Your task to perform on an android device: turn vacation reply on in the gmail app Image 0: 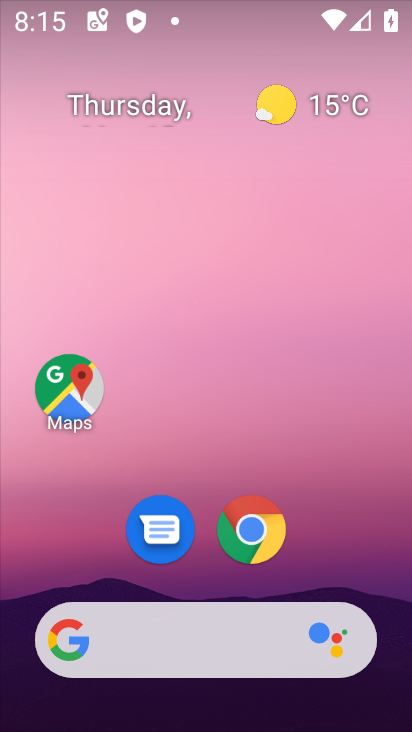
Step 0: drag from (144, 687) to (165, 22)
Your task to perform on an android device: turn vacation reply on in the gmail app Image 1: 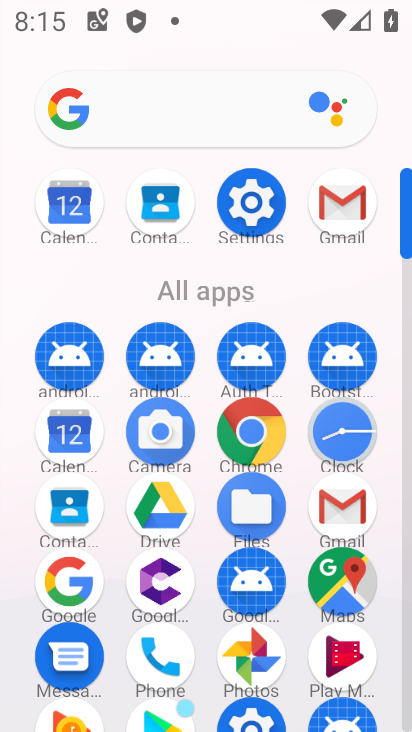
Step 1: click (343, 205)
Your task to perform on an android device: turn vacation reply on in the gmail app Image 2: 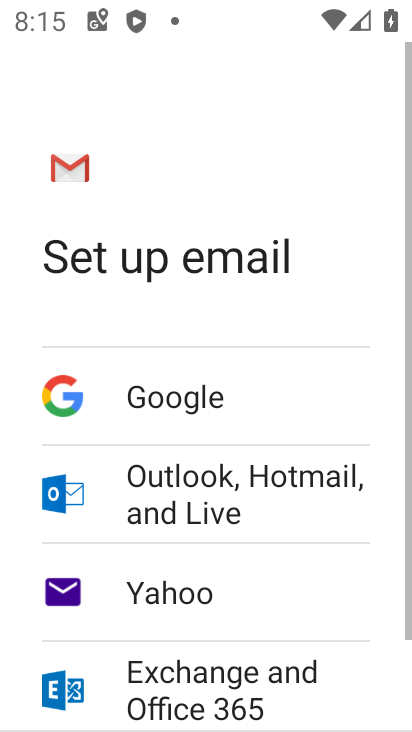
Step 2: press home button
Your task to perform on an android device: turn vacation reply on in the gmail app Image 3: 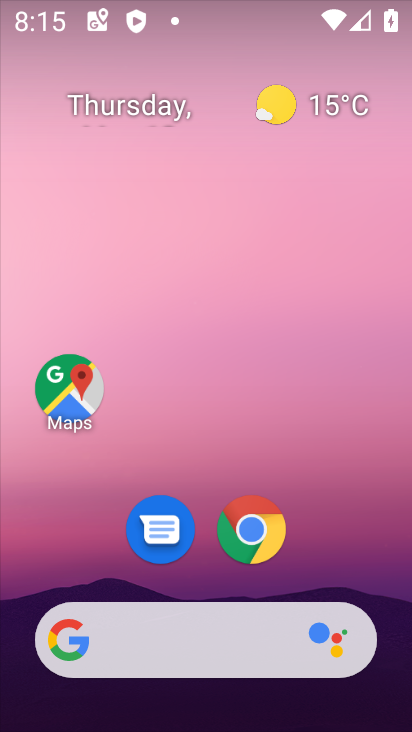
Step 3: drag from (179, 704) to (216, 13)
Your task to perform on an android device: turn vacation reply on in the gmail app Image 4: 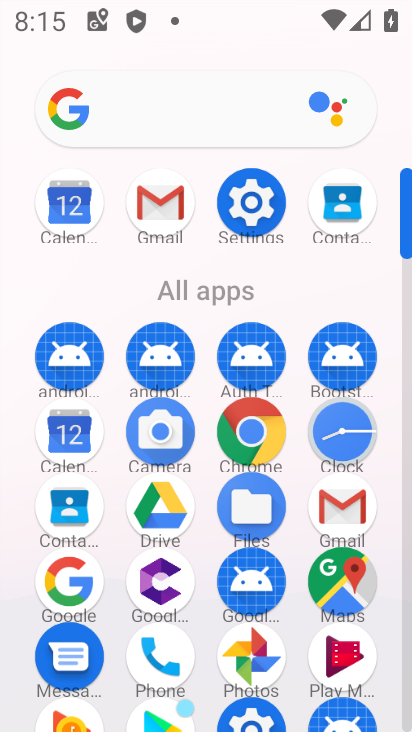
Step 4: click (330, 517)
Your task to perform on an android device: turn vacation reply on in the gmail app Image 5: 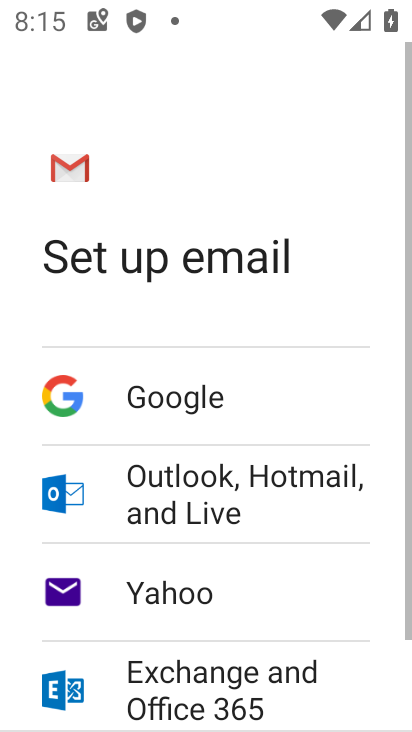
Step 5: press back button
Your task to perform on an android device: turn vacation reply on in the gmail app Image 6: 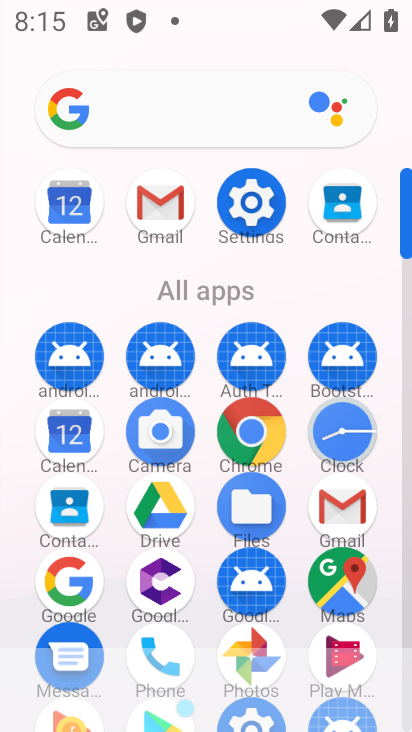
Step 6: click (352, 510)
Your task to perform on an android device: turn vacation reply on in the gmail app Image 7: 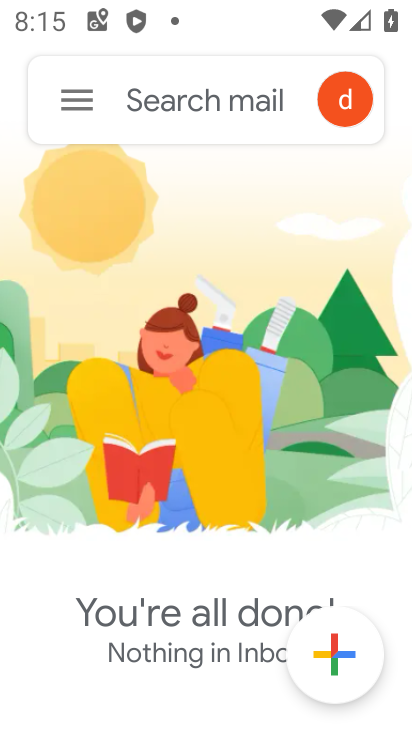
Step 7: click (52, 113)
Your task to perform on an android device: turn vacation reply on in the gmail app Image 8: 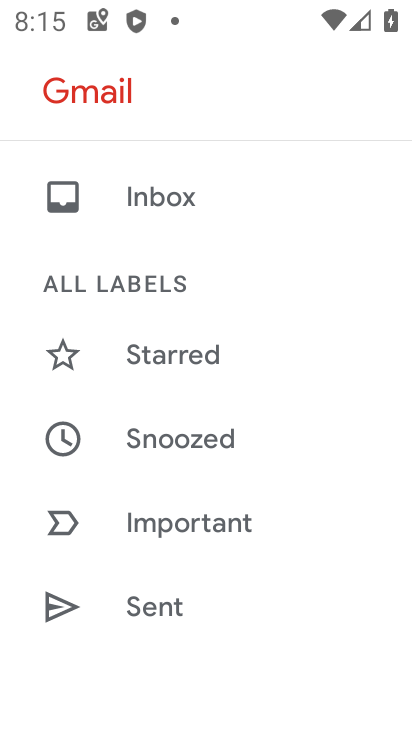
Step 8: drag from (207, 595) to (283, 66)
Your task to perform on an android device: turn vacation reply on in the gmail app Image 9: 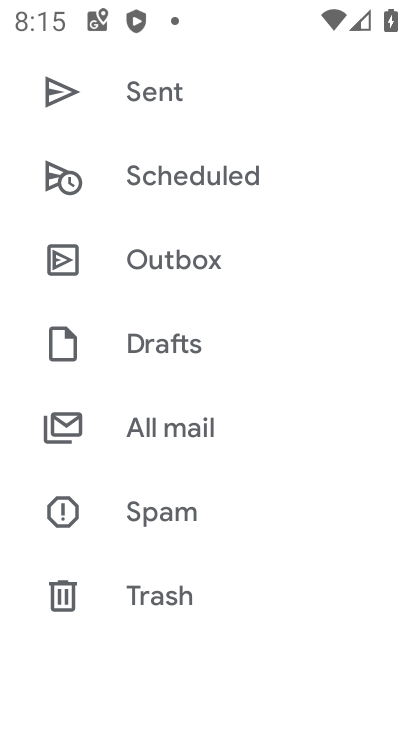
Step 9: drag from (181, 545) to (188, 104)
Your task to perform on an android device: turn vacation reply on in the gmail app Image 10: 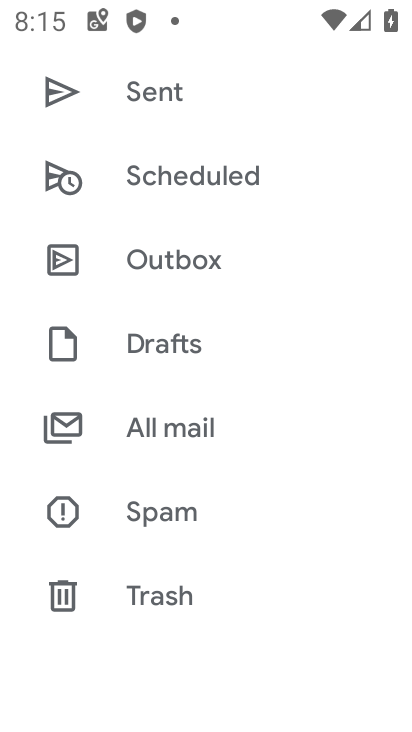
Step 10: drag from (155, 607) to (209, 94)
Your task to perform on an android device: turn vacation reply on in the gmail app Image 11: 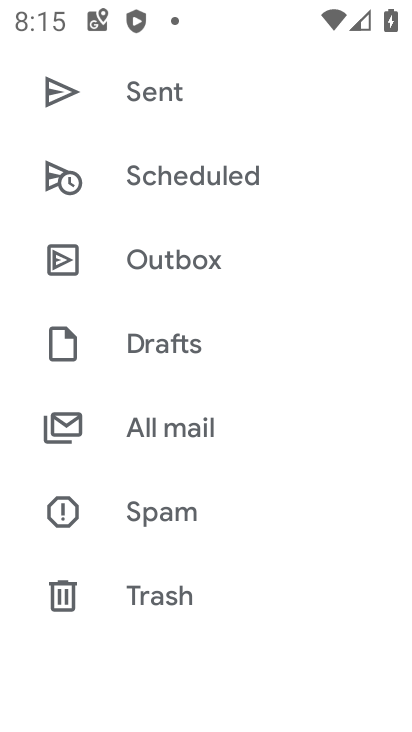
Step 11: drag from (96, 568) to (277, 13)
Your task to perform on an android device: turn vacation reply on in the gmail app Image 12: 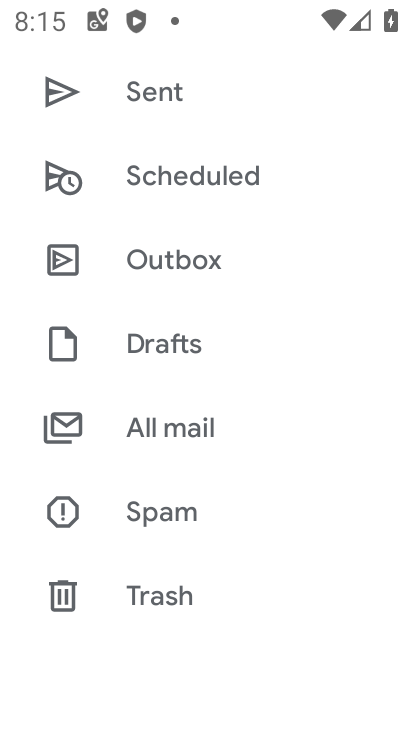
Step 12: drag from (161, 588) to (230, 45)
Your task to perform on an android device: turn vacation reply on in the gmail app Image 13: 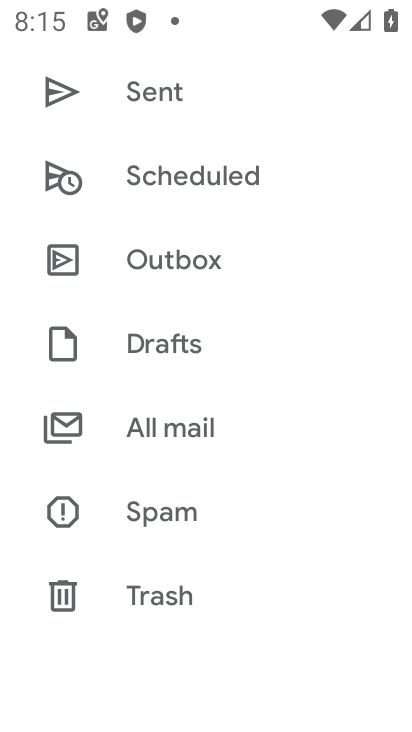
Step 13: drag from (259, 571) to (220, 46)
Your task to perform on an android device: turn vacation reply on in the gmail app Image 14: 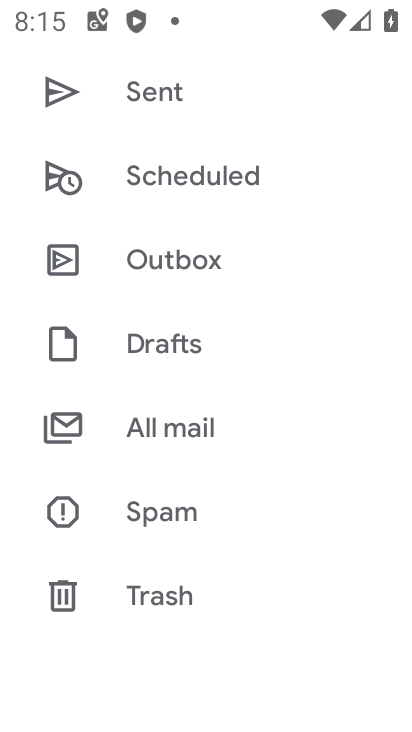
Step 14: drag from (292, 348) to (328, 1)
Your task to perform on an android device: turn vacation reply on in the gmail app Image 15: 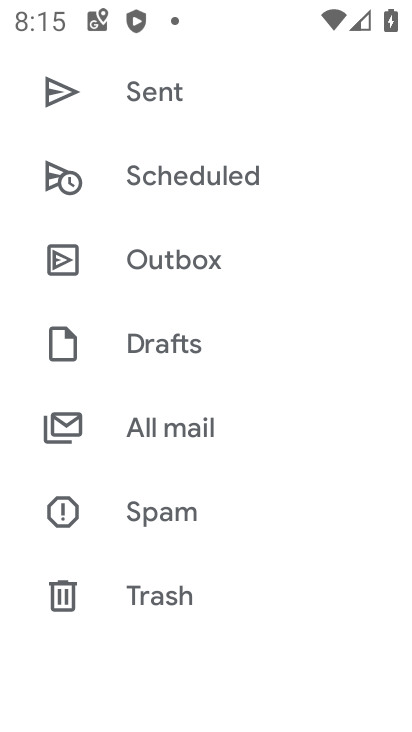
Step 15: drag from (165, 445) to (174, 13)
Your task to perform on an android device: turn vacation reply on in the gmail app Image 16: 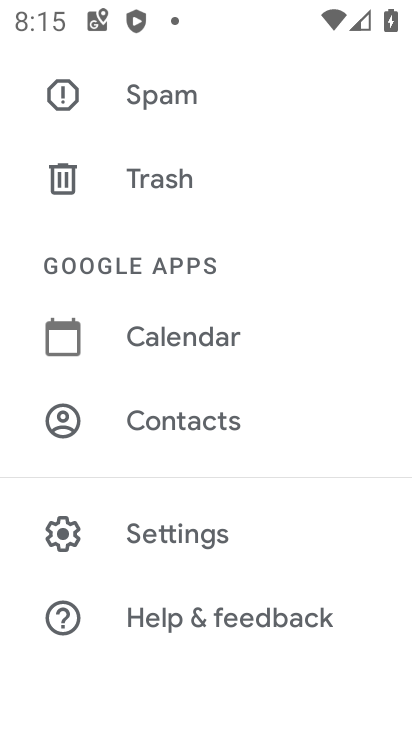
Step 16: click (205, 547)
Your task to perform on an android device: turn vacation reply on in the gmail app Image 17: 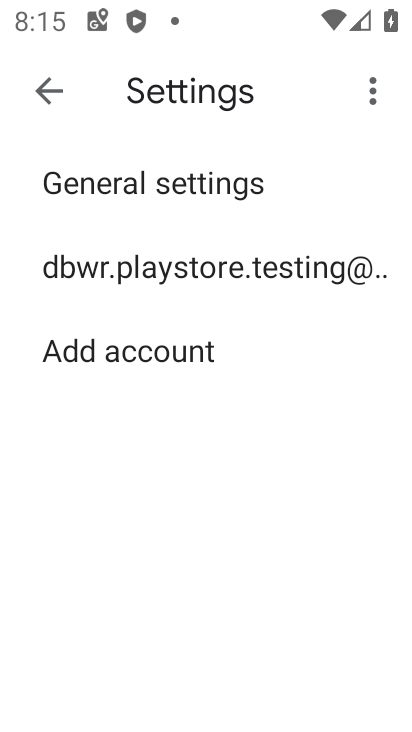
Step 17: click (239, 271)
Your task to perform on an android device: turn vacation reply on in the gmail app Image 18: 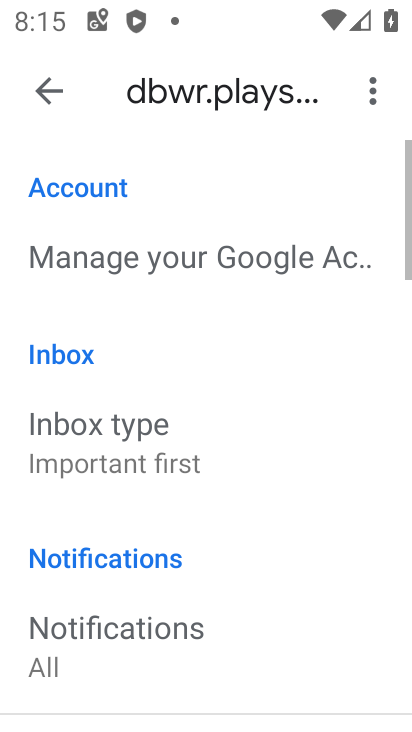
Step 18: drag from (151, 644) to (197, 63)
Your task to perform on an android device: turn vacation reply on in the gmail app Image 19: 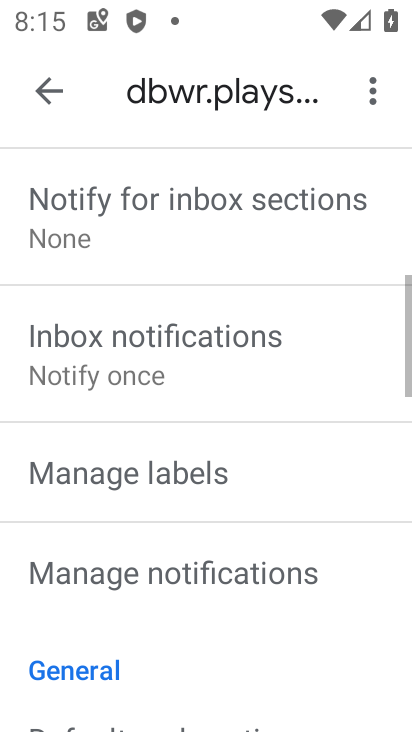
Step 19: drag from (146, 575) to (155, 59)
Your task to perform on an android device: turn vacation reply on in the gmail app Image 20: 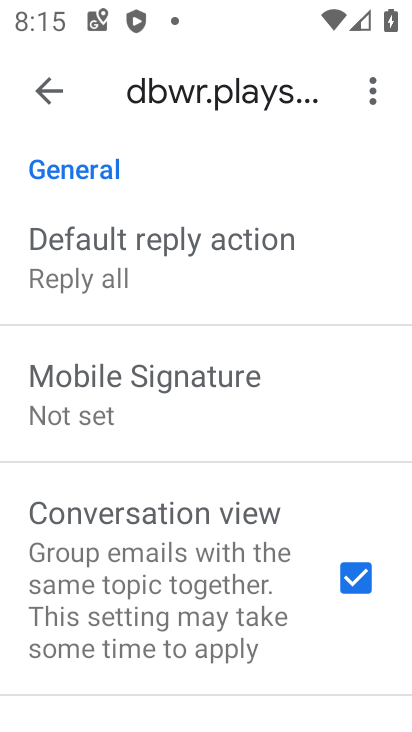
Step 20: drag from (202, 638) to (141, 14)
Your task to perform on an android device: turn vacation reply on in the gmail app Image 21: 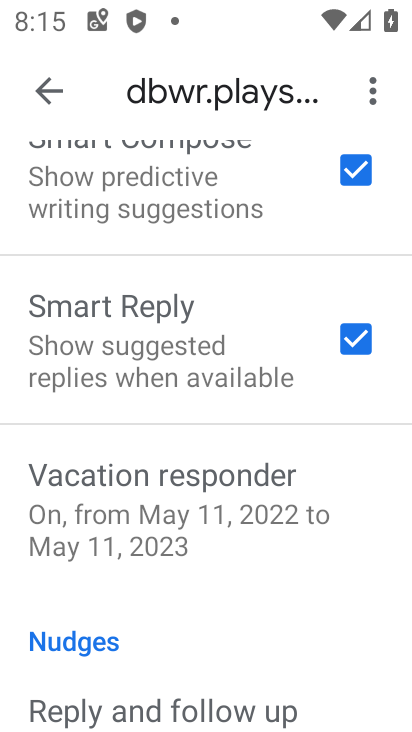
Step 21: click (218, 518)
Your task to perform on an android device: turn vacation reply on in the gmail app Image 22: 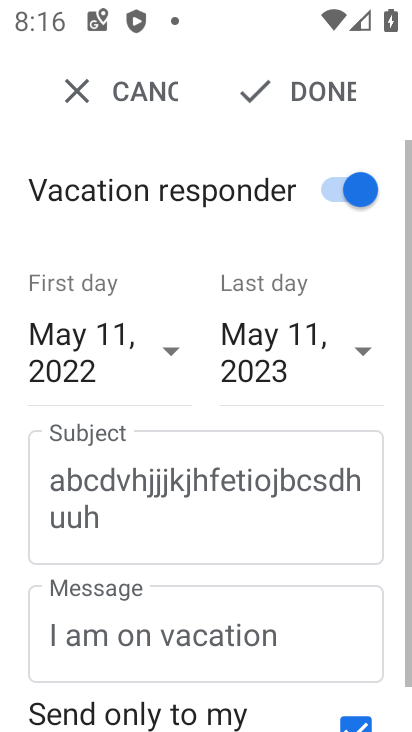
Step 22: click (352, 86)
Your task to perform on an android device: turn vacation reply on in the gmail app Image 23: 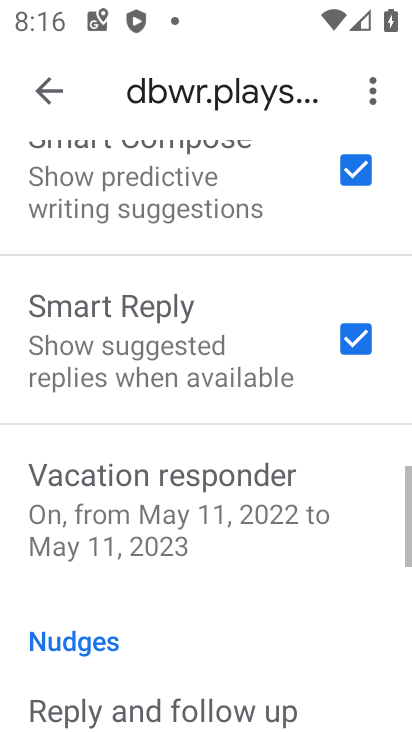
Step 23: task complete